Your task to perform on an android device: uninstall "Contacts" Image 0: 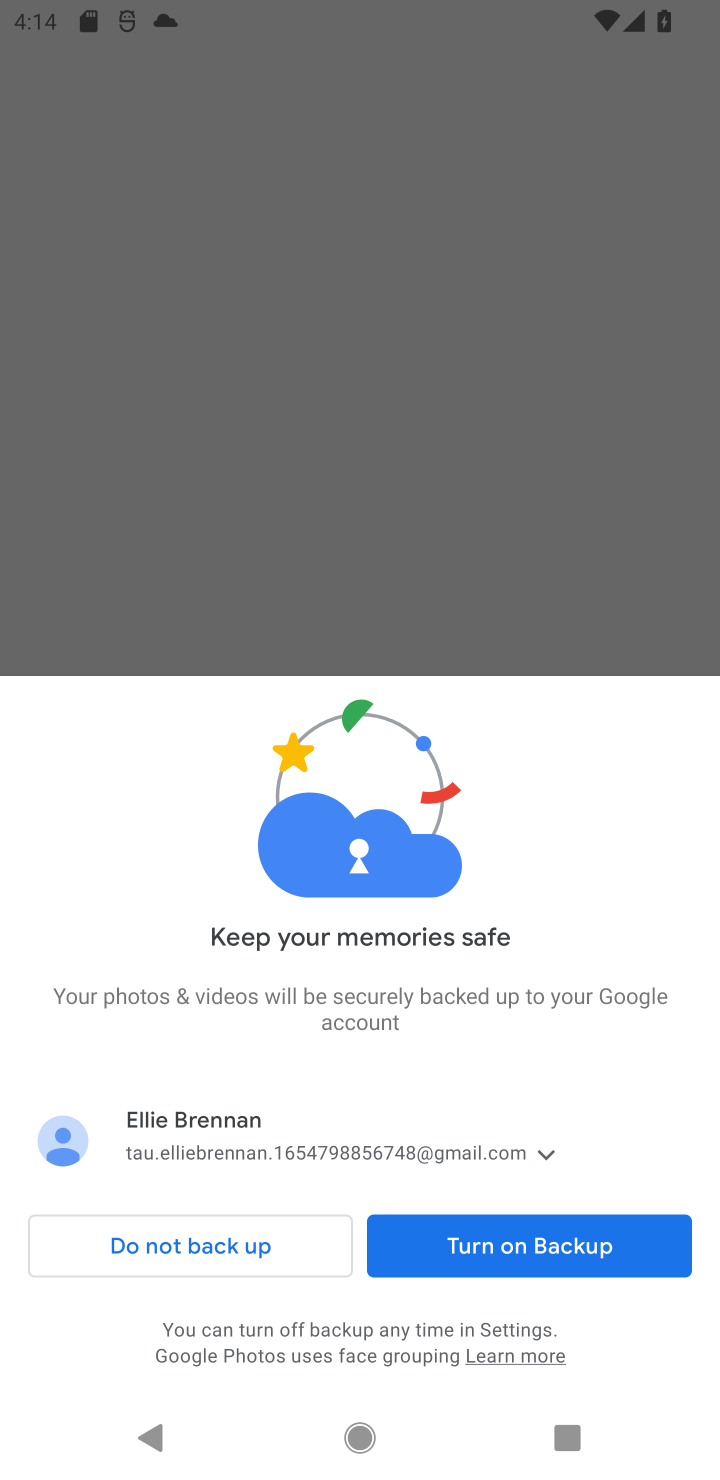
Step 0: press home button
Your task to perform on an android device: uninstall "Contacts" Image 1: 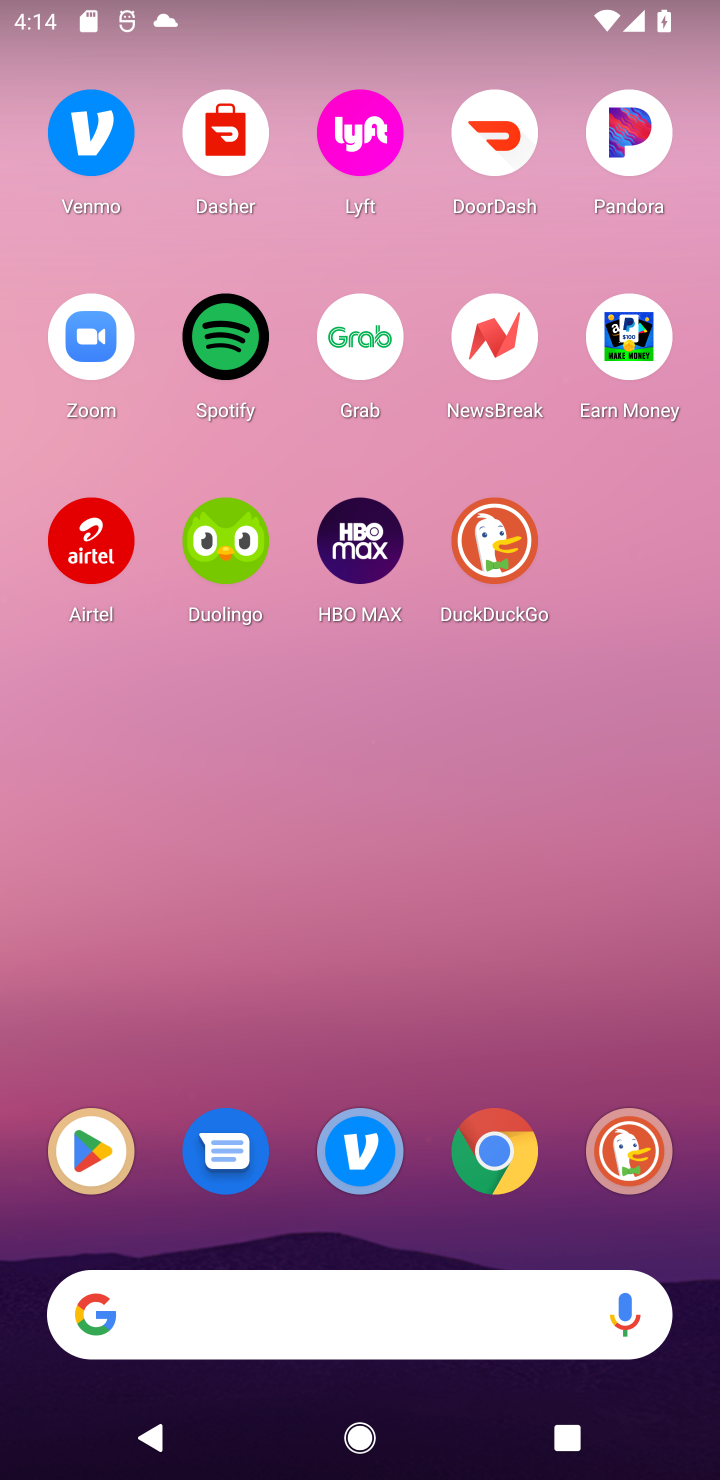
Step 1: drag from (373, 1068) to (461, 364)
Your task to perform on an android device: uninstall "Contacts" Image 2: 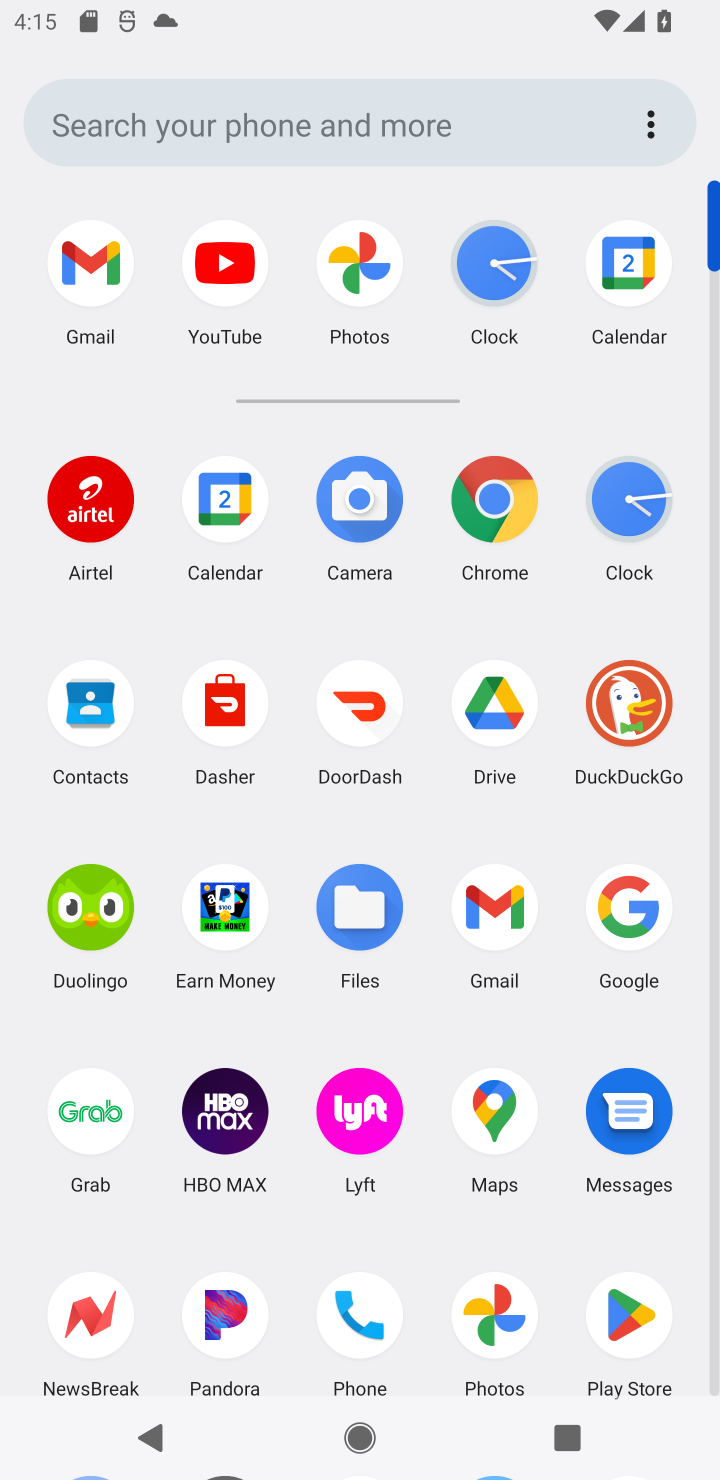
Step 2: drag from (517, 897) to (545, 236)
Your task to perform on an android device: uninstall "Contacts" Image 3: 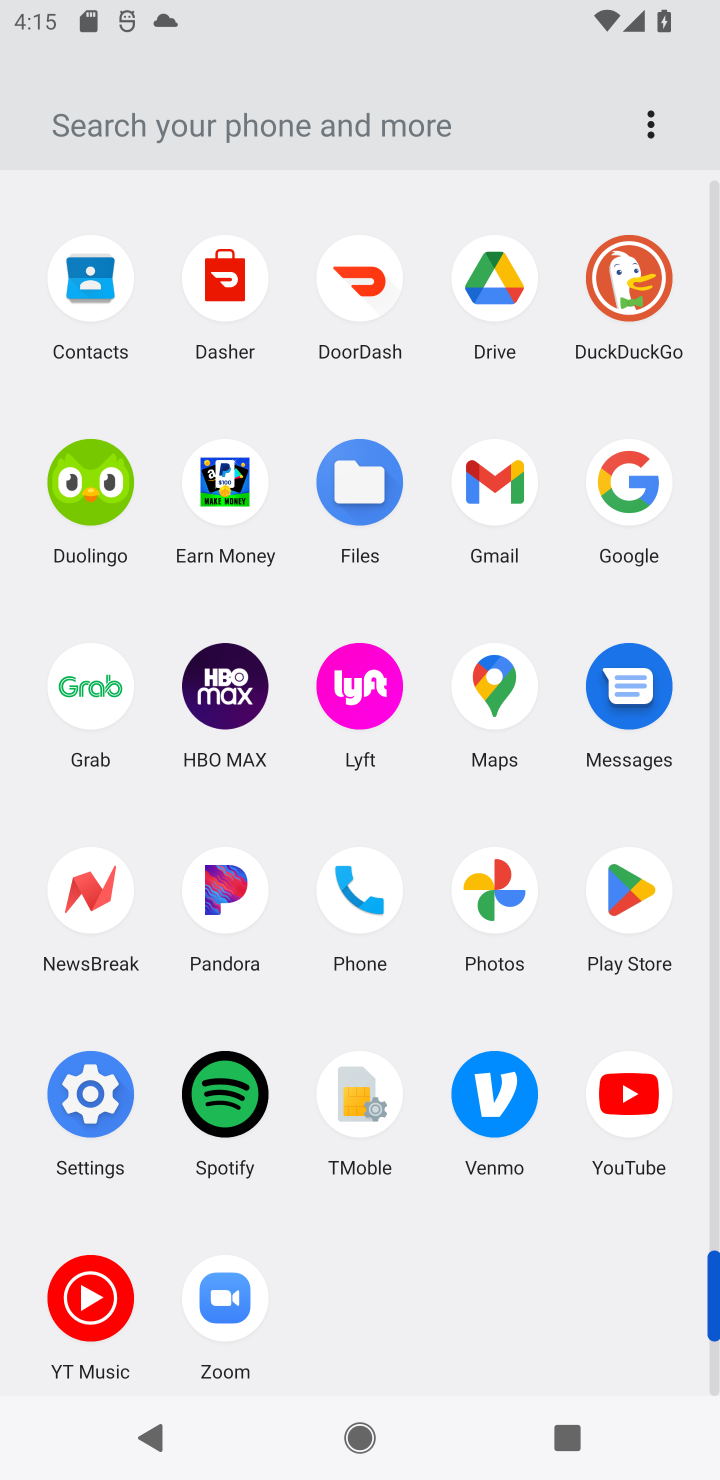
Step 3: click (645, 947)
Your task to perform on an android device: uninstall "Contacts" Image 4: 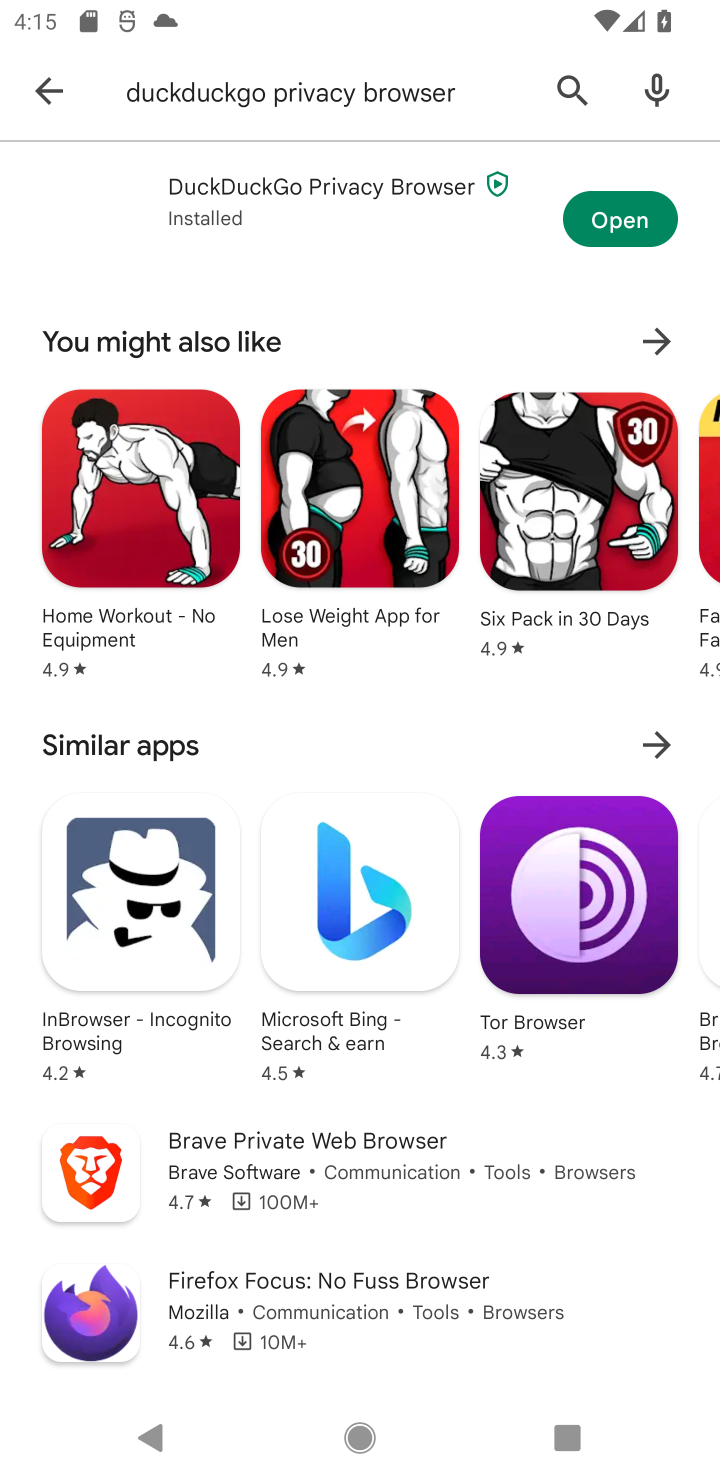
Step 4: click (39, 65)
Your task to perform on an android device: uninstall "Contacts" Image 5: 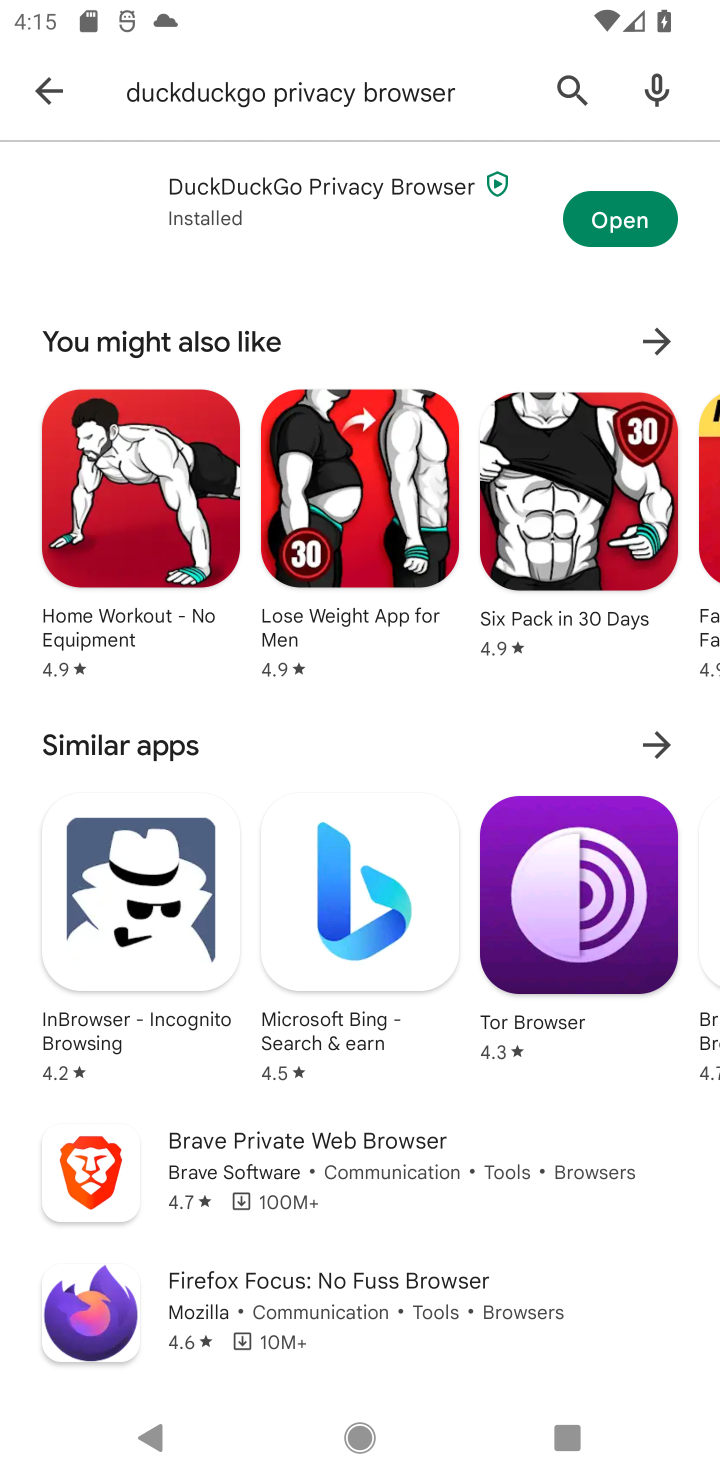
Step 5: click (31, 105)
Your task to perform on an android device: uninstall "Contacts" Image 6: 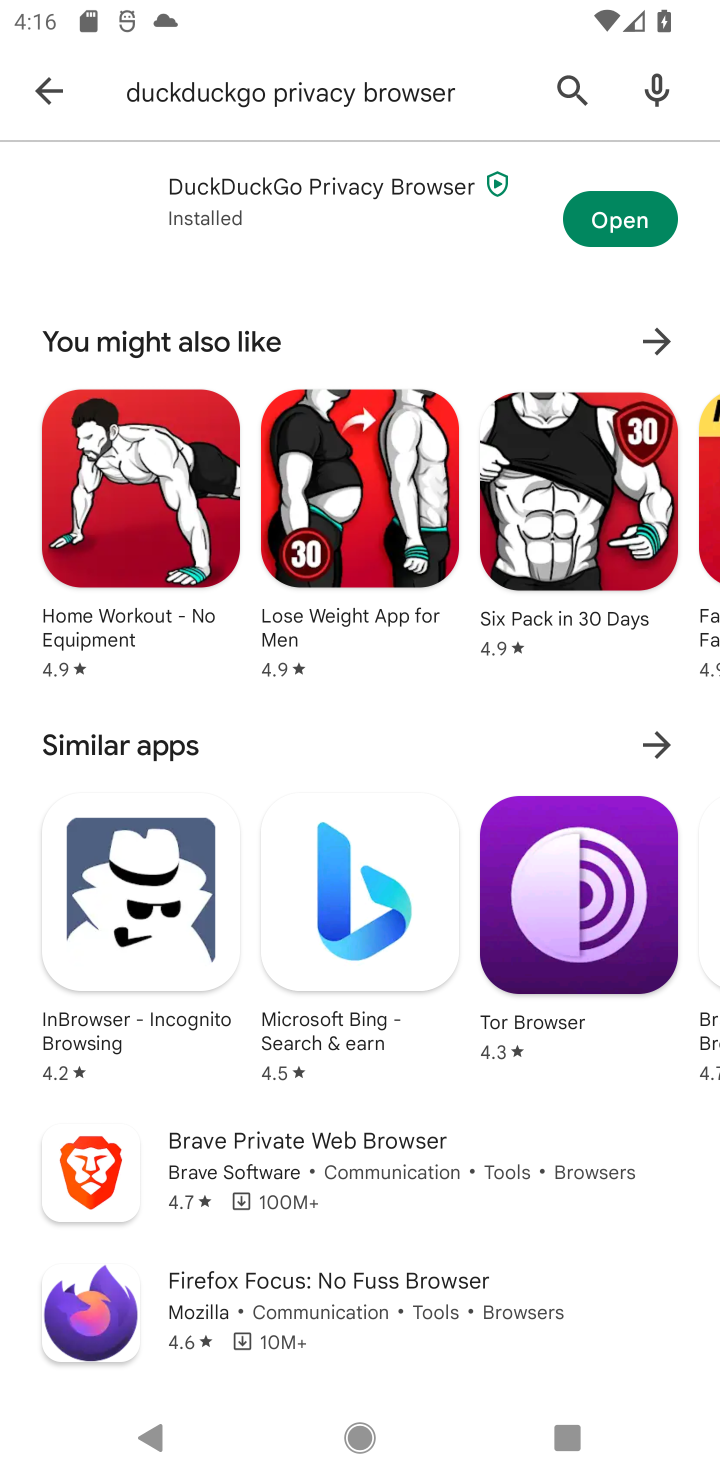
Step 6: click (27, 99)
Your task to perform on an android device: uninstall "Contacts" Image 7: 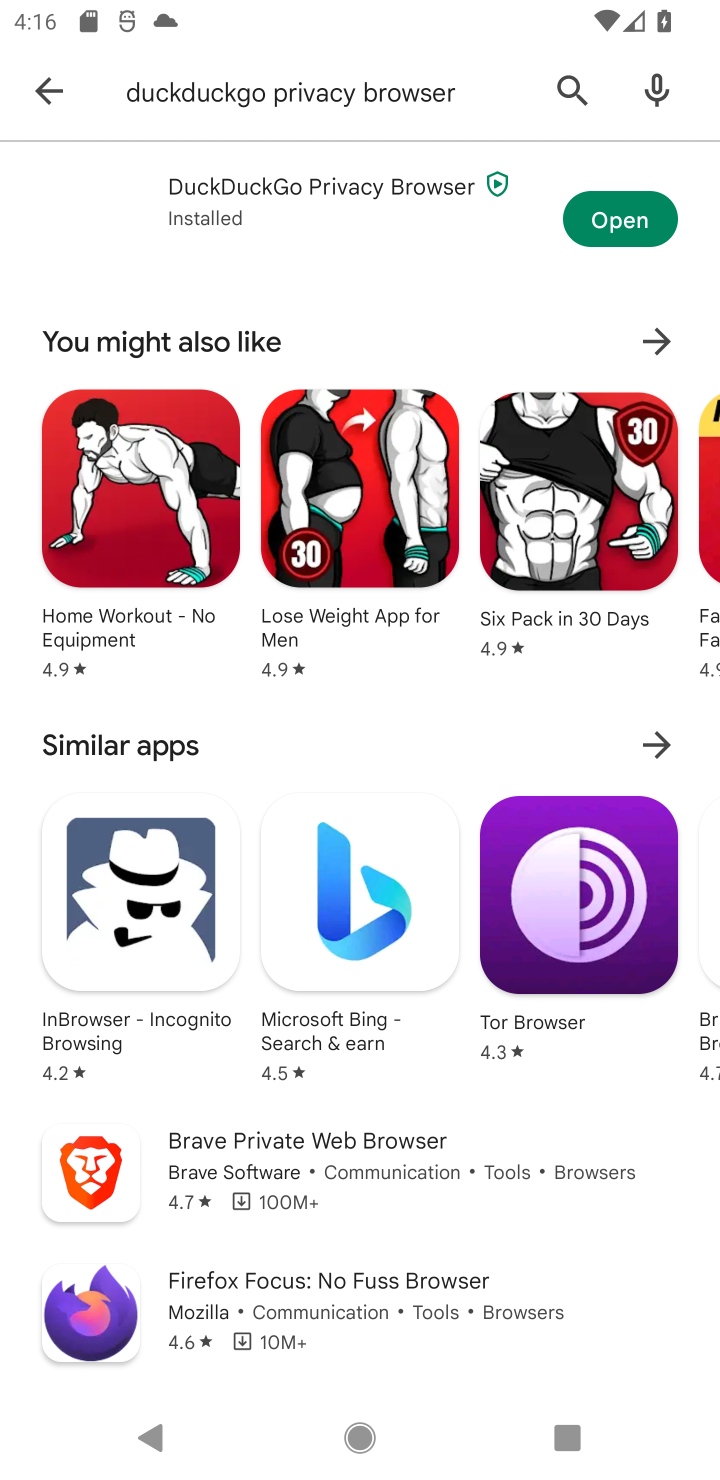
Step 7: click (39, 84)
Your task to perform on an android device: uninstall "Contacts" Image 8: 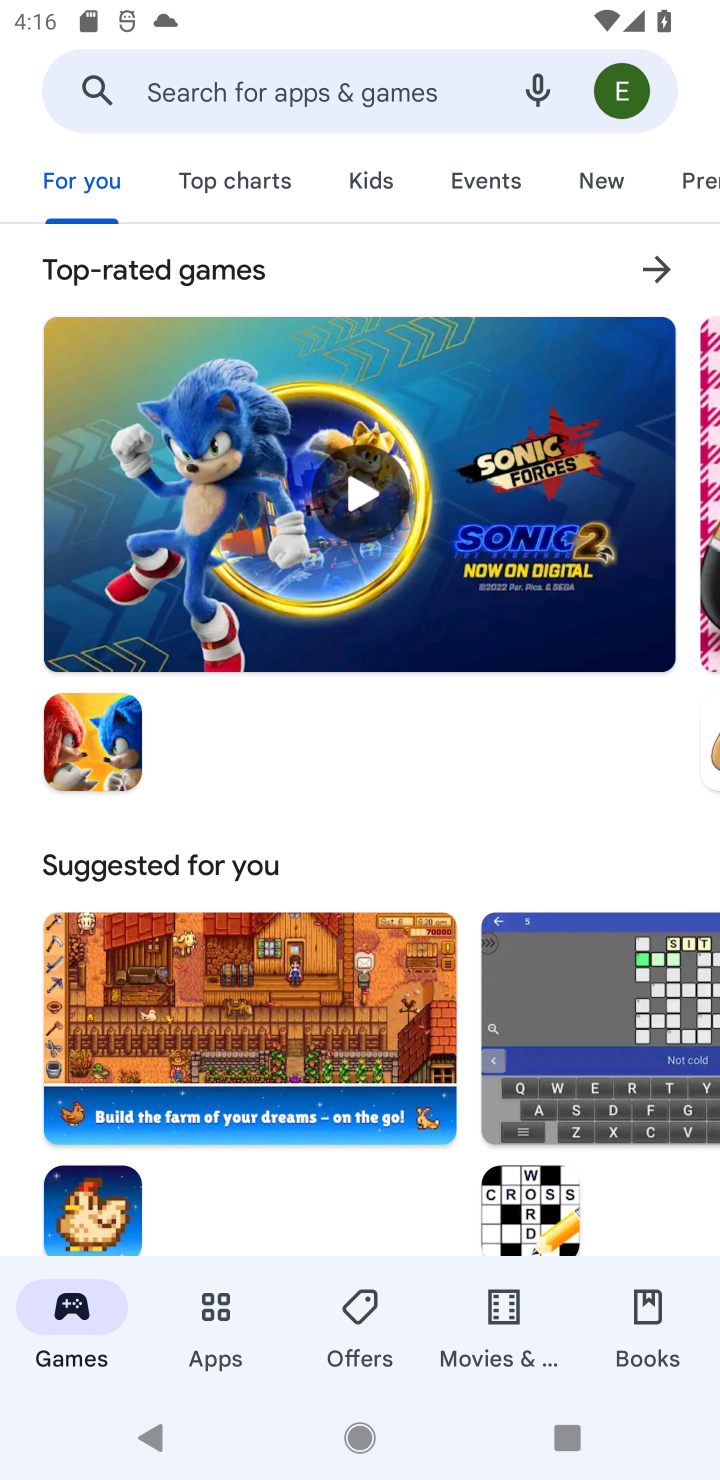
Step 8: click (110, 102)
Your task to perform on an android device: uninstall "Contacts" Image 9: 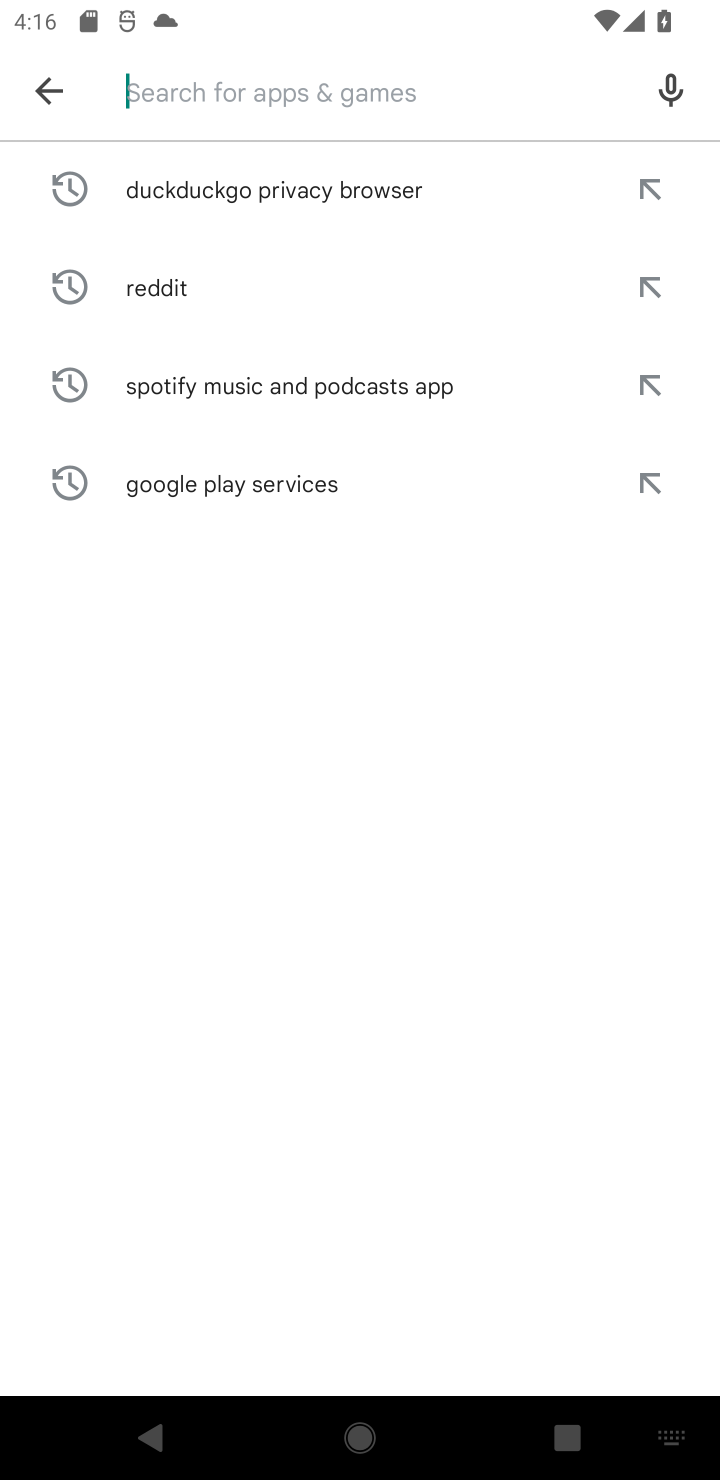
Step 9: type "Contacts"
Your task to perform on an android device: uninstall "Contacts" Image 10: 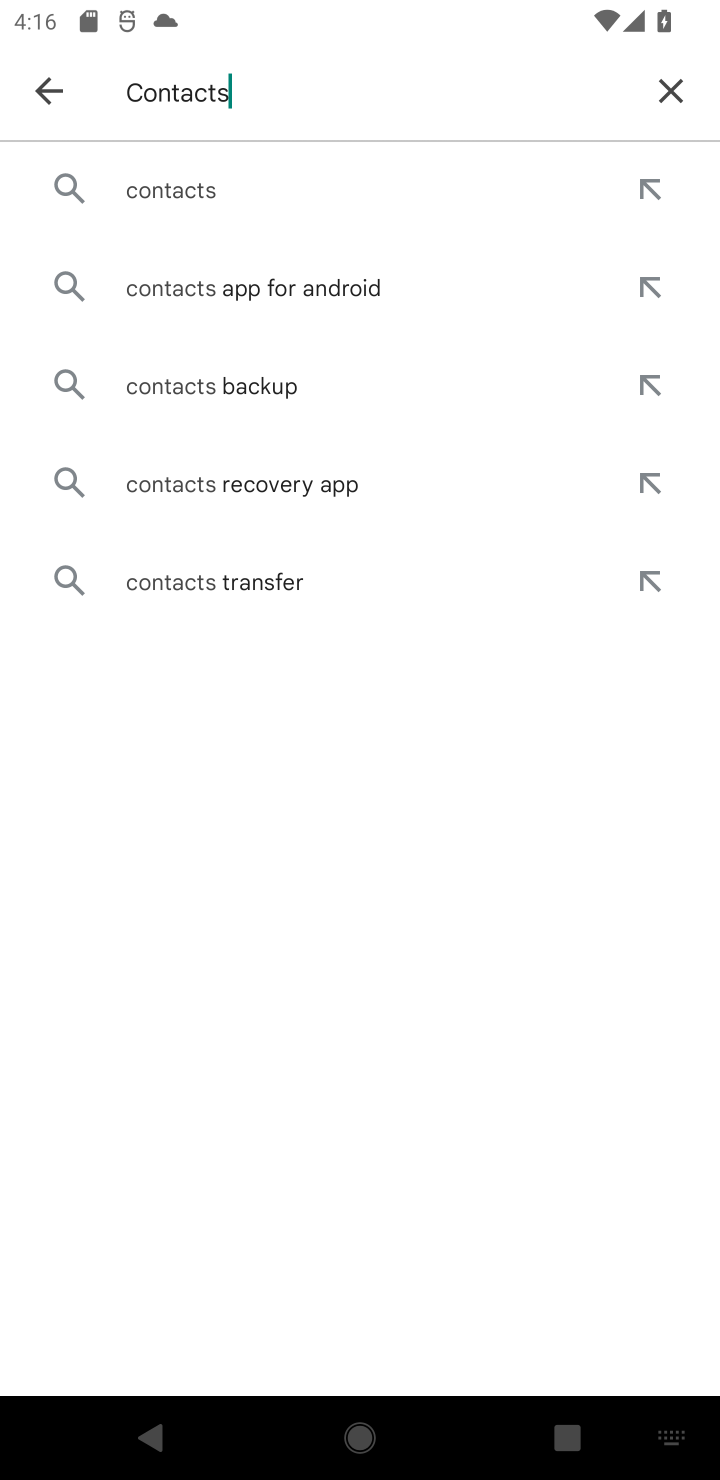
Step 10: click (336, 184)
Your task to perform on an android device: uninstall "Contacts" Image 11: 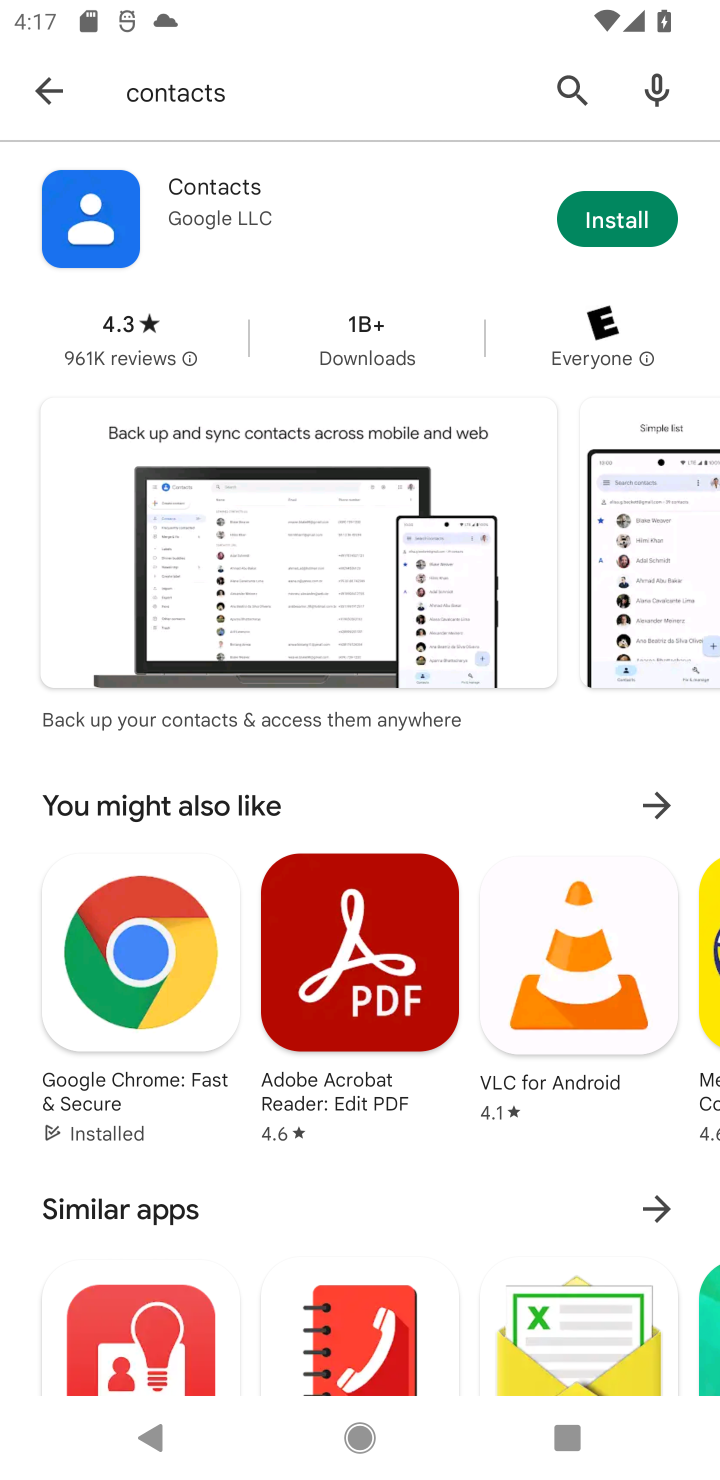
Step 11: task complete